Your task to perform on an android device: delete the emails in spam in the gmail app Image 0: 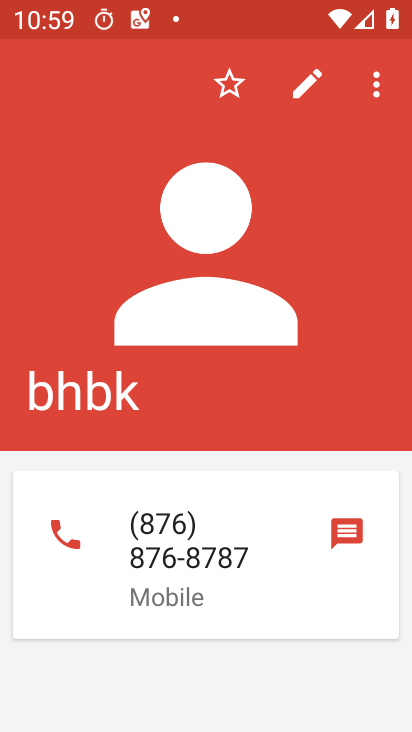
Step 0: press home button
Your task to perform on an android device: delete the emails in spam in the gmail app Image 1: 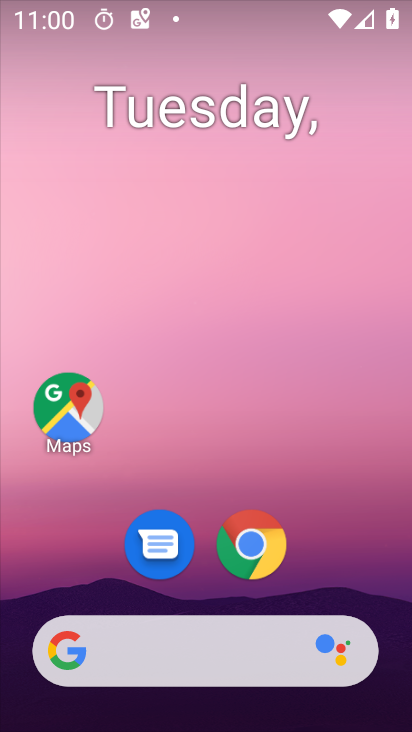
Step 1: drag from (359, 597) to (343, 69)
Your task to perform on an android device: delete the emails in spam in the gmail app Image 2: 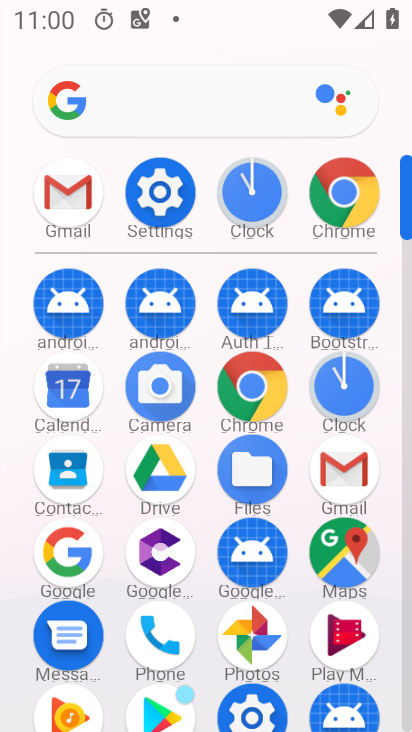
Step 2: click (74, 210)
Your task to perform on an android device: delete the emails in spam in the gmail app Image 3: 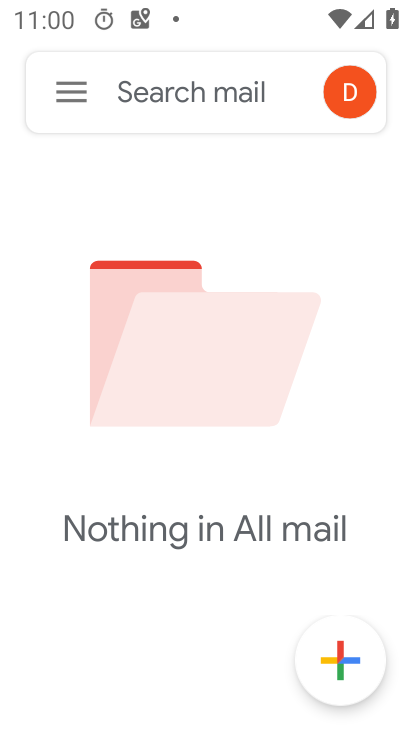
Step 3: click (67, 103)
Your task to perform on an android device: delete the emails in spam in the gmail app Image 4: 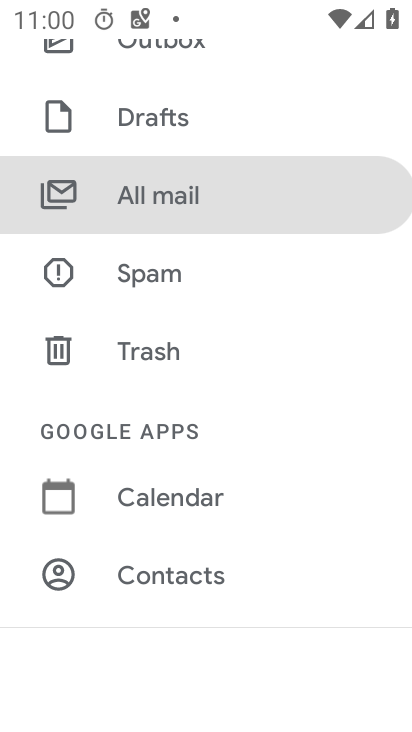
Step 4: click (162, 294)
Your task to perform on an android device: delete the emails in spam in the gmail app Image 5: 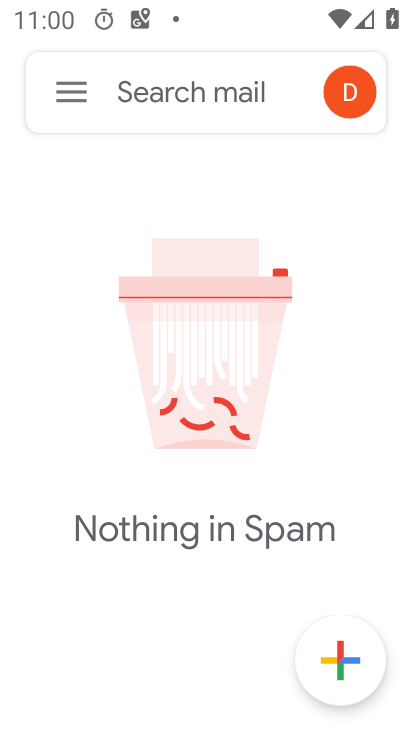
Step 5: task complete